Your task to perform on an android device: What is the news today? Image 0: 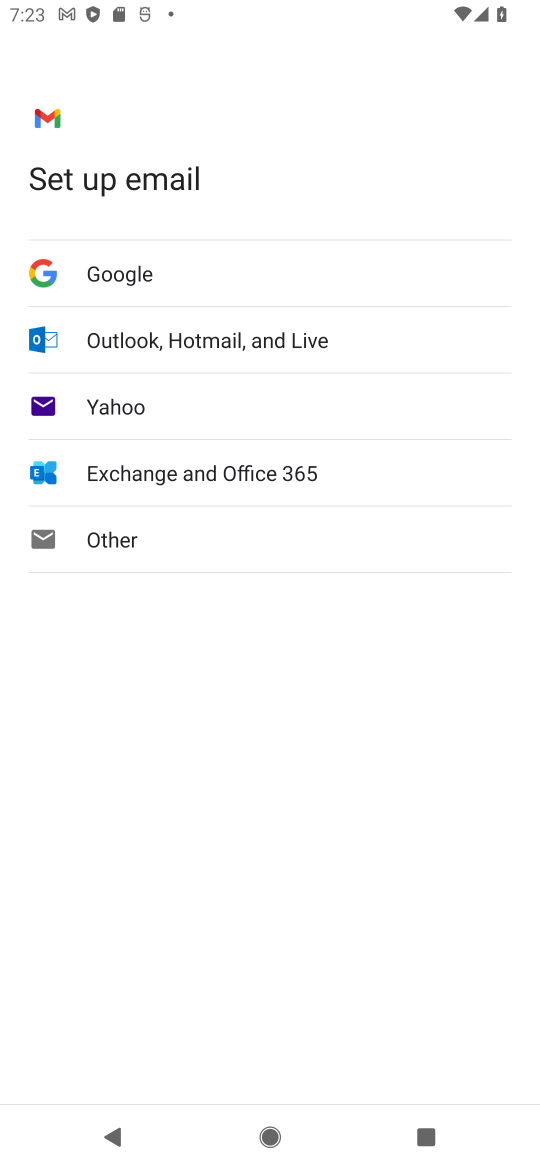
Step 0: press back button
Your task to perform on an android device: What is the news today? Image 1: 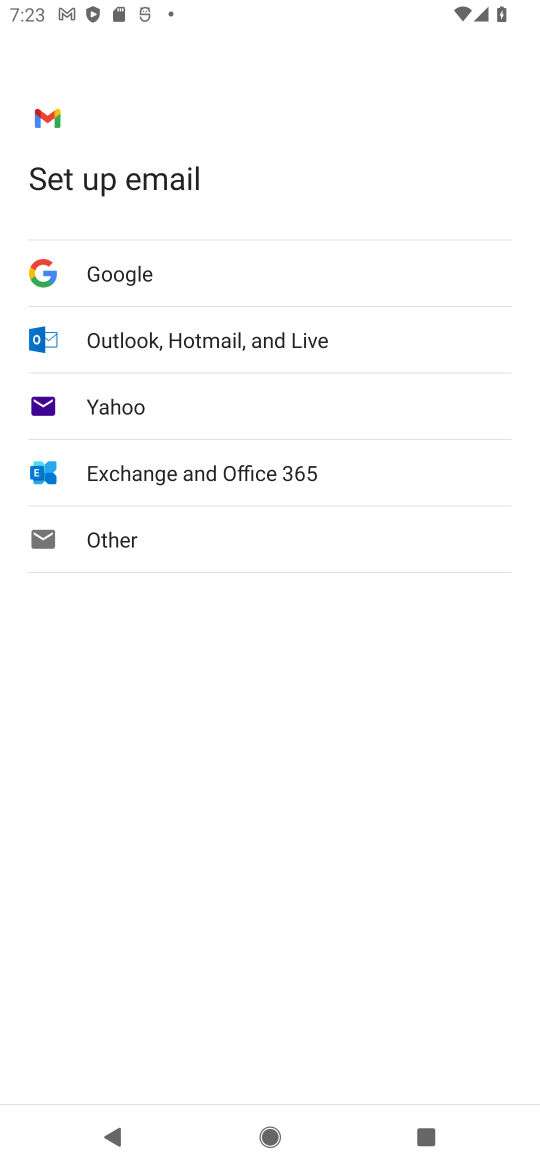
Step 1: press back button
Your task to perform on an android device: What is the news today? Image 2: 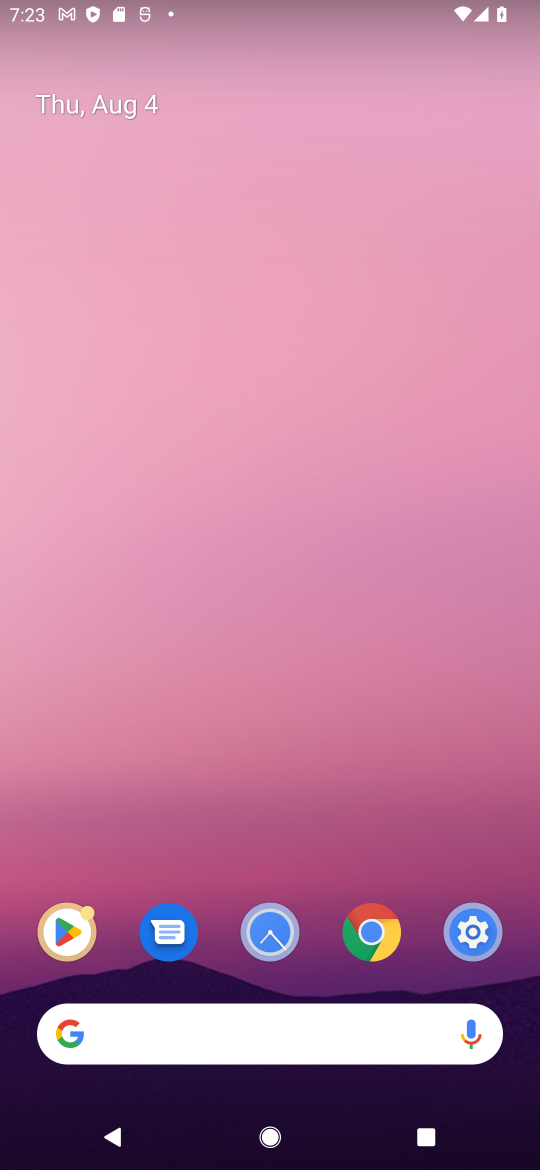
Step 2: press back button
Your task to perform on an android device: What is the news today? Image 3: 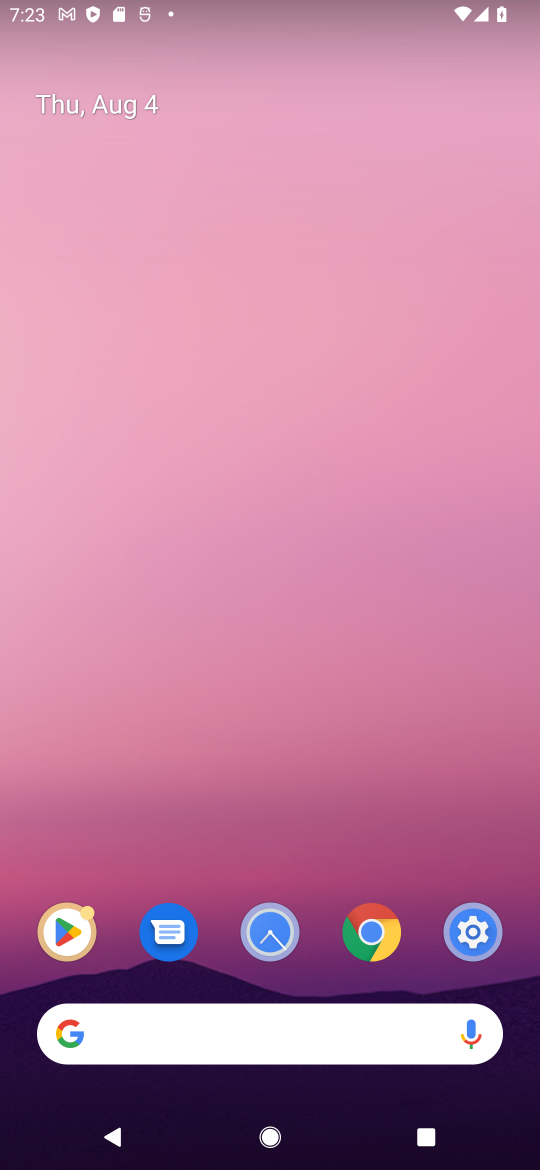
Step 3: drag from (154, 12) to (169, 128)
Your task to perform on an android device: What is the news today? Image 4: 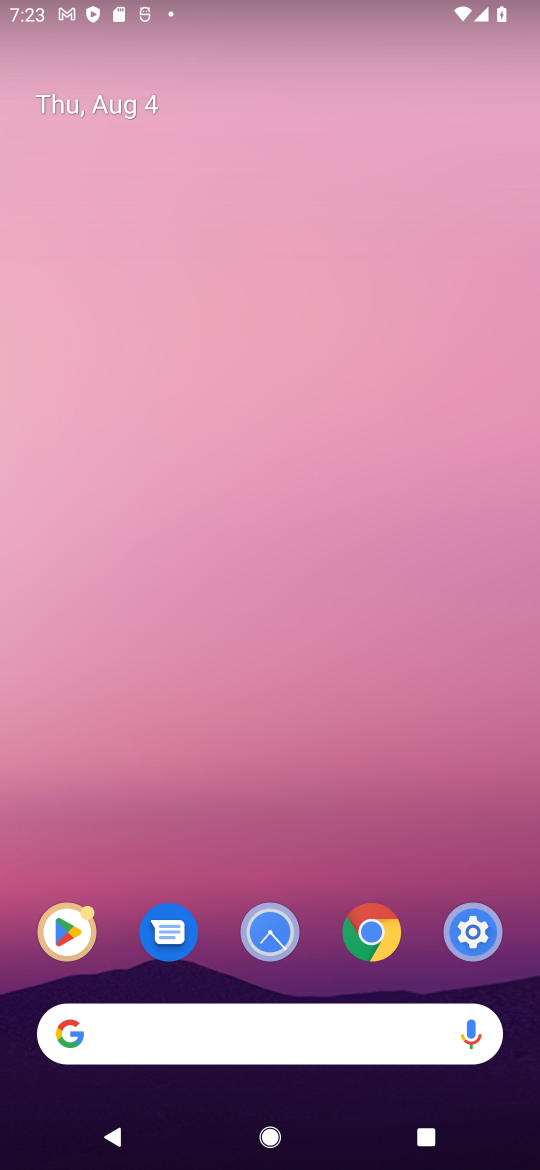
Step 4: click (225, 27)
Your task to perform on an android device: What is the news today? Image 5: 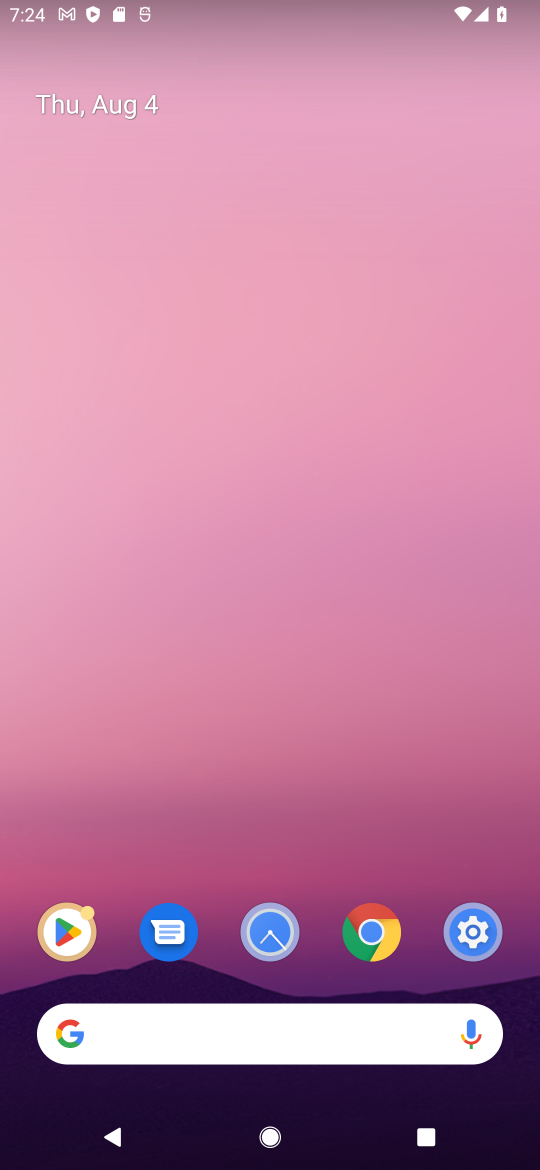
Step 5: drag from (252, 782) to (281, 42)
Your task to perform on an android device: What is the news today? Image 6: 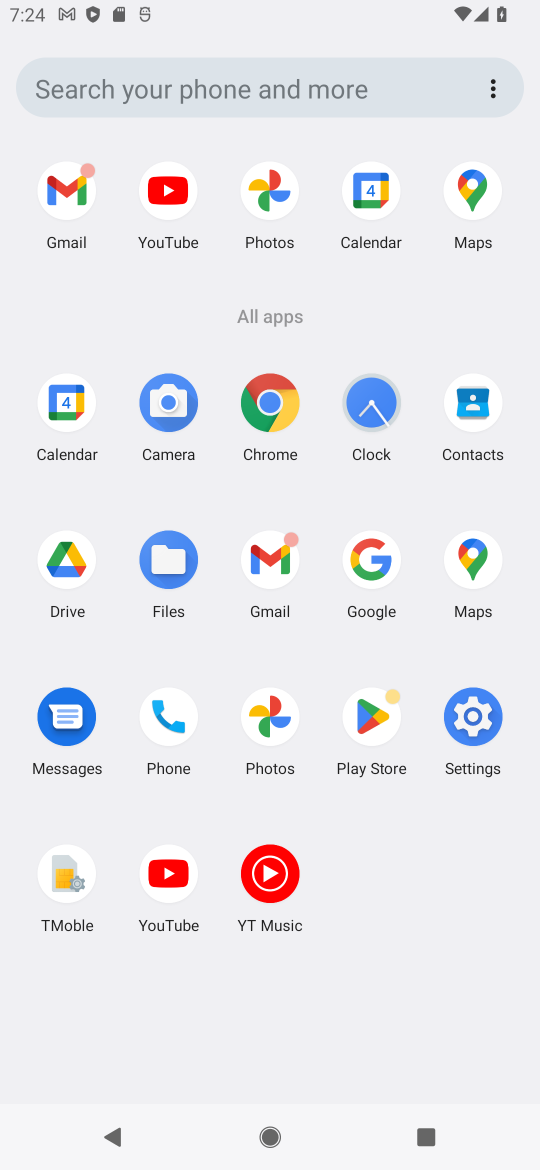
Step 6: click (260, 400)
Your task to perform on an android device: What is the news today? Image 7: 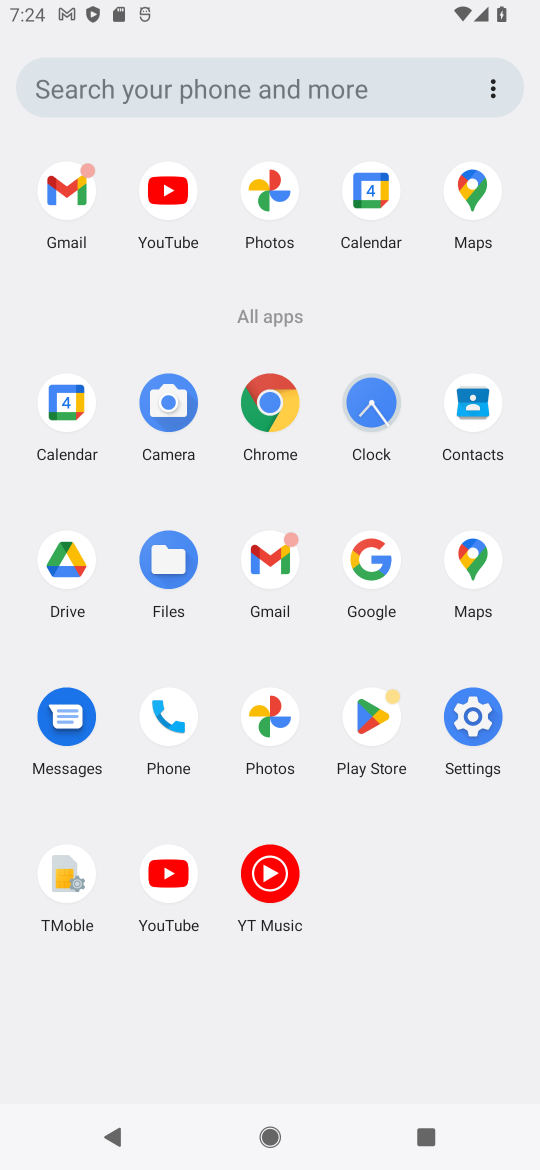
Step 7: click (260, 400)
Your task to perform on an android device: What is the news today? Image 8: 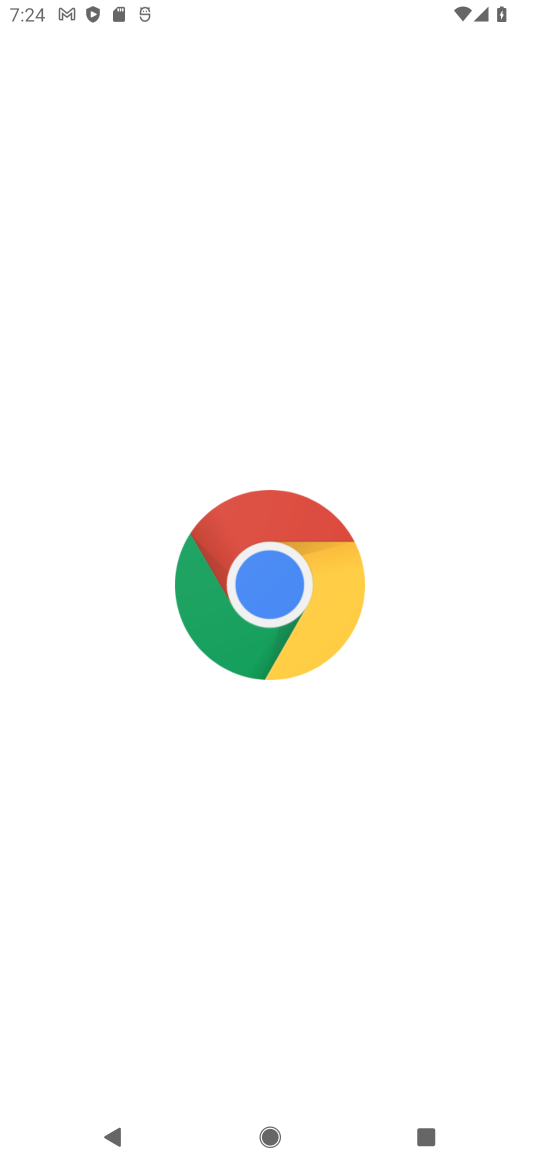
Step 8: click (260, 400)
Your task to perform on an android device: What is the news today? Image 9: 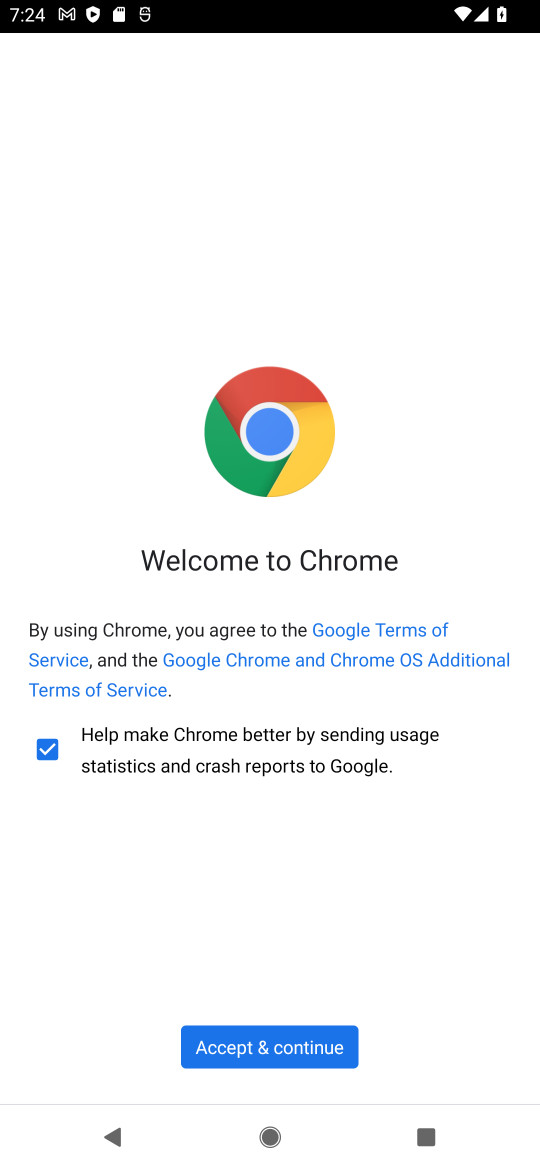
Step 9: click (276, 1037)
Your task to perform on an android device: What is the news today? Image 10: 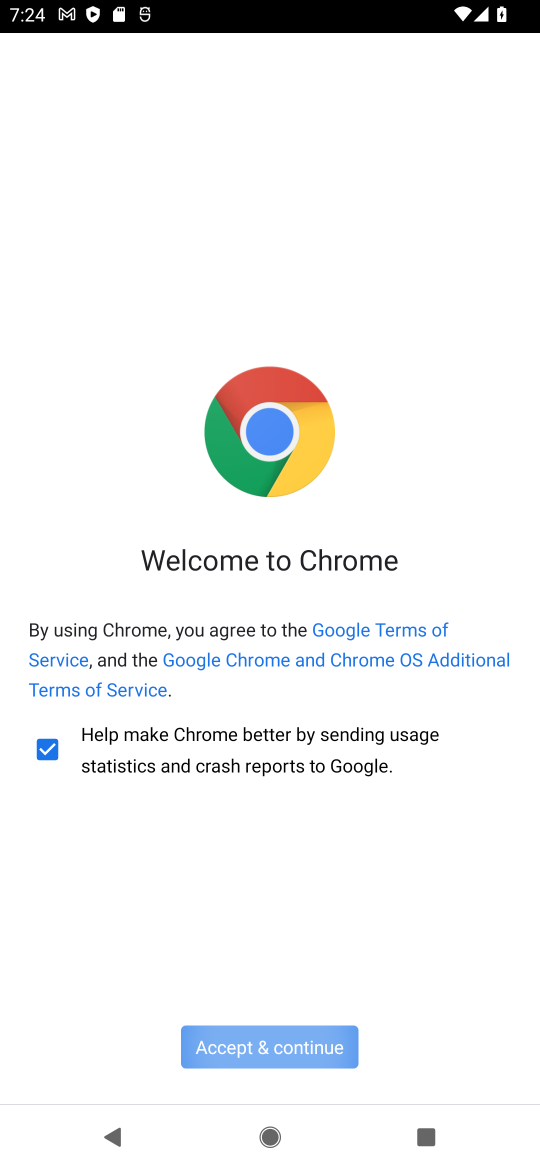
Step 10: click (279, 1030)
Your task to perform on an android device: What is the news today? Image 11: 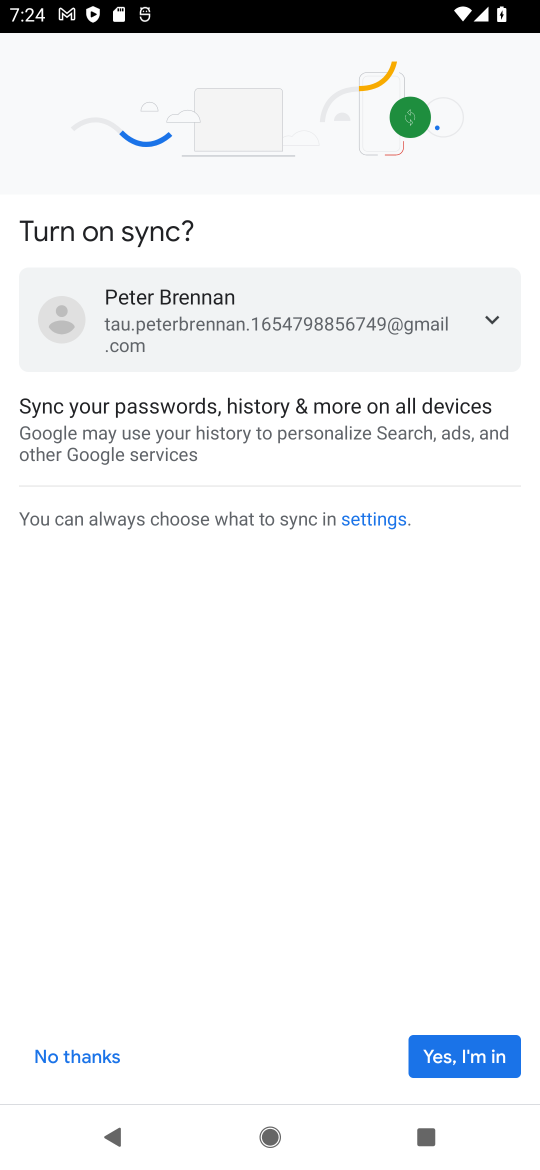
Step 11: click (98, 1041)
Your task to perform on an android device: What is the news today? Image 12: 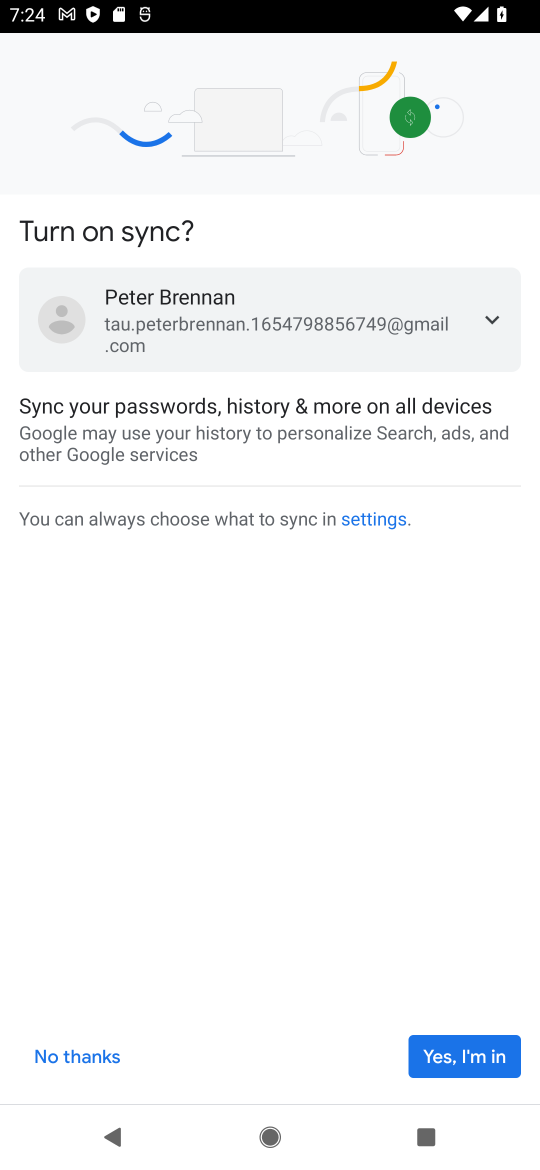
Step 12: click (61, 1046)
Your task to perform on an android device: What is the news today? Image 13: 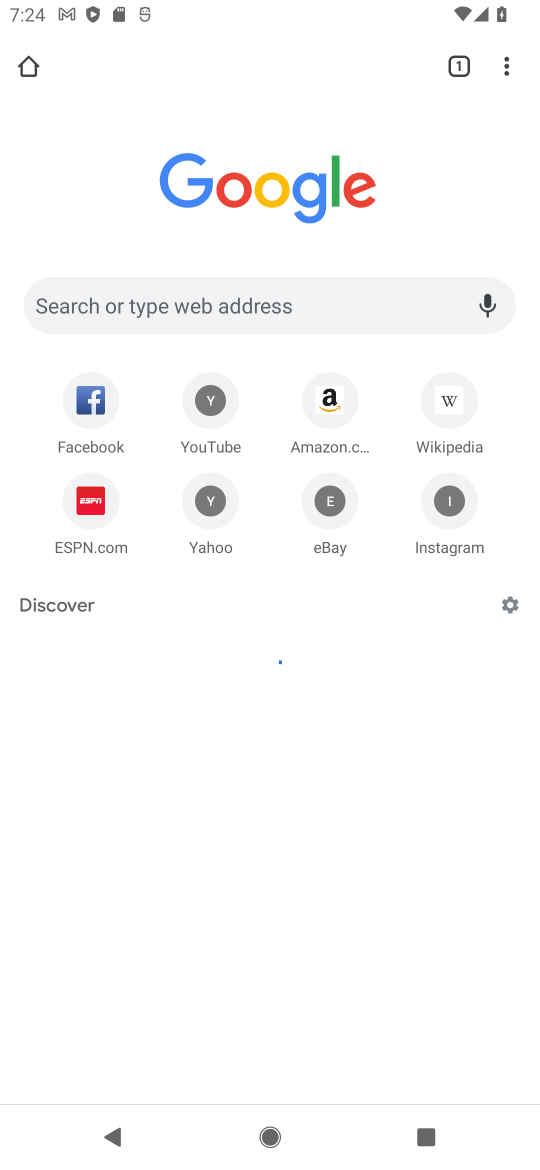
Step 13: drag from (174, 922) to (174, 438)
Your task to perform on an android device: What is the news today? Image 14: 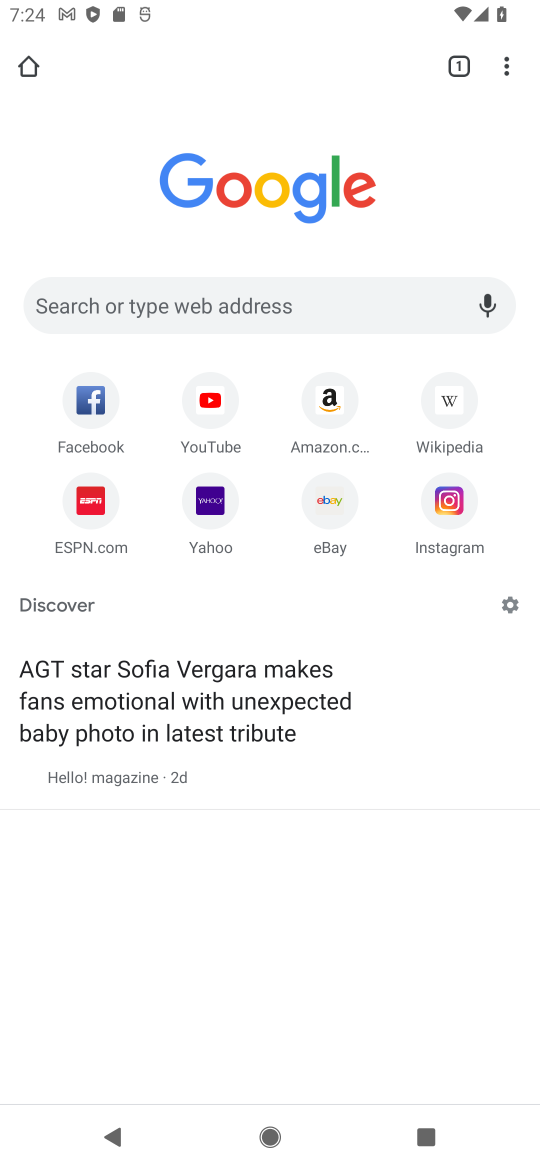
Step 14: drag from (321, 893) to (286, 640)
Your task to perform on an android device: What is the news today? Image 15: 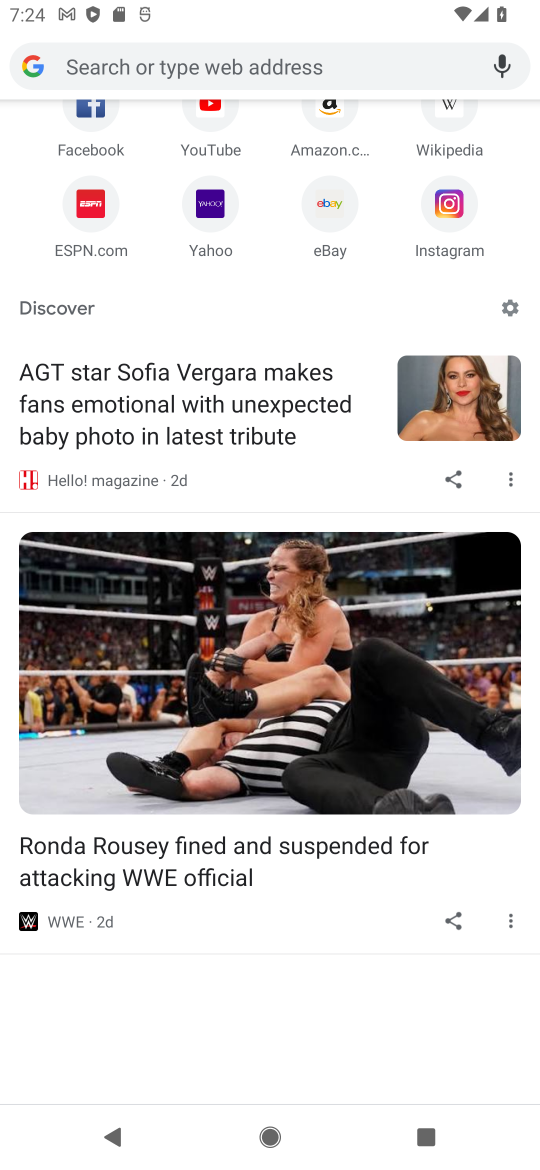
Step 15: click (147, 371)
Your task to perform on an android device: What is the news today? Image 16: 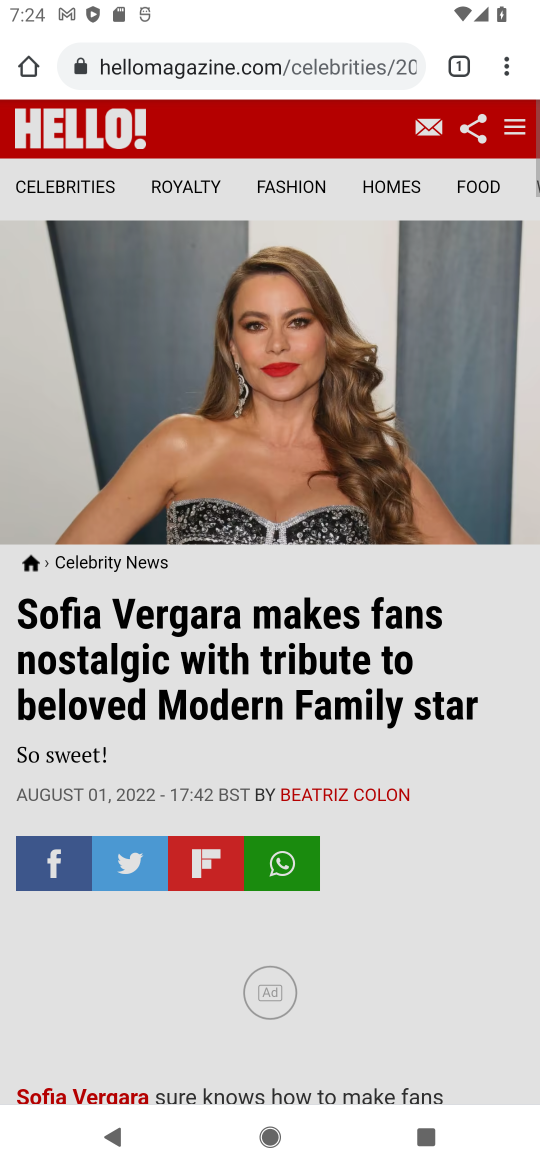
Step 16: drag from (316, 712) to (316, 98)
Your task to perform on an android device: What is the news today? Image 17: 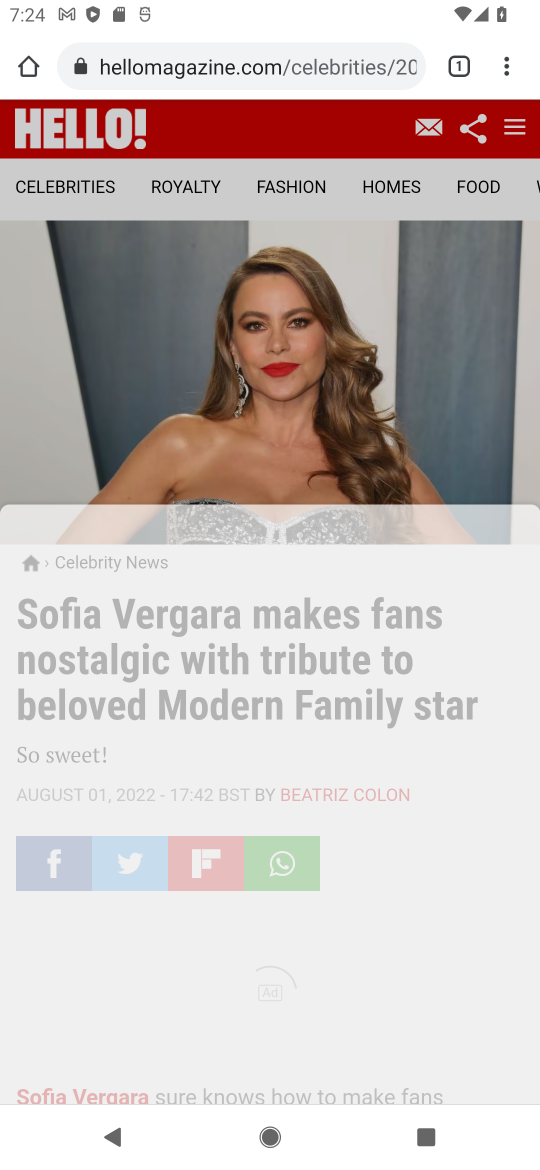
Step 17: click (399, 291)
Your task to perform on an android device: What is the news today? Image 18: 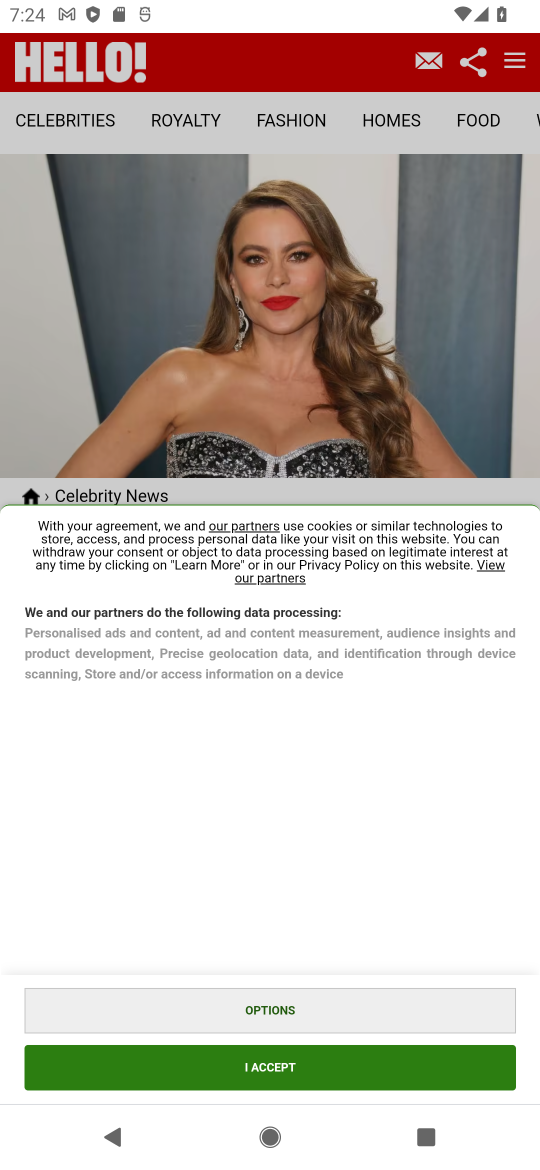
Step 18: task complete